Your task to perform on an android device: turn off smart reply in the gmail app Image 0: 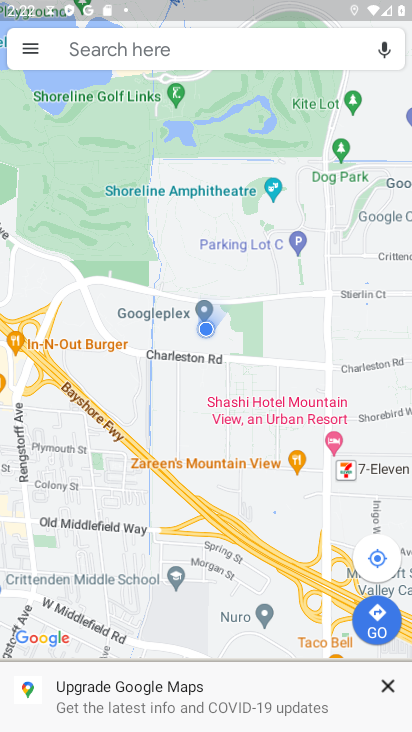
Step 0: press home button
Your task to perform on an android device: turn off smart reply in the gmail app Image 1: 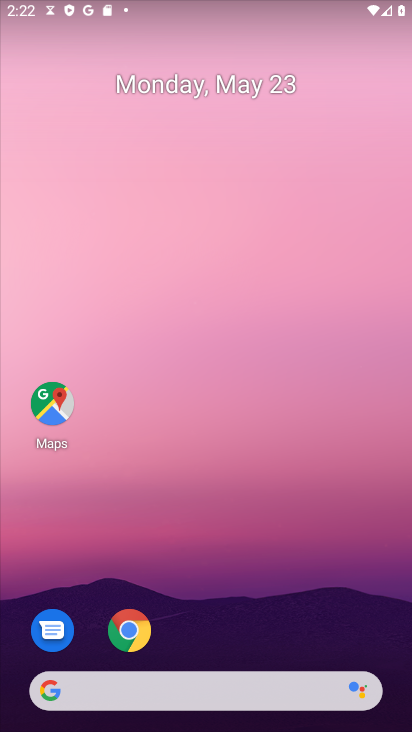
Step 1: drag from (265, 504) to (257, 78)
Your task to perform on an android device: turn off smart reply in the gmail app Image 2: 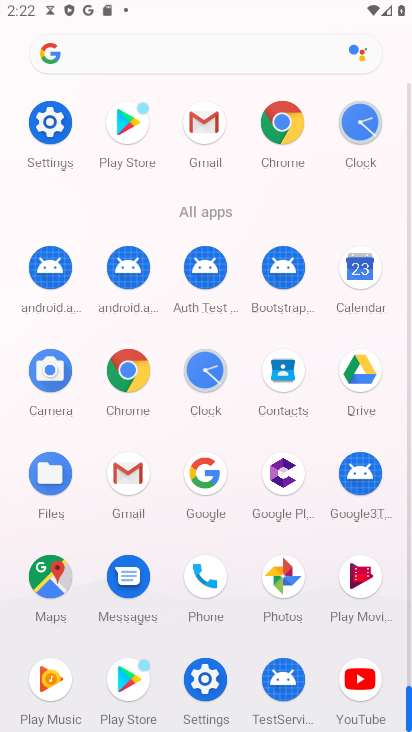
Step 2: click (206, 129)
Your task to perform on an android device: turn off smart reply in the gmail app Image 3: 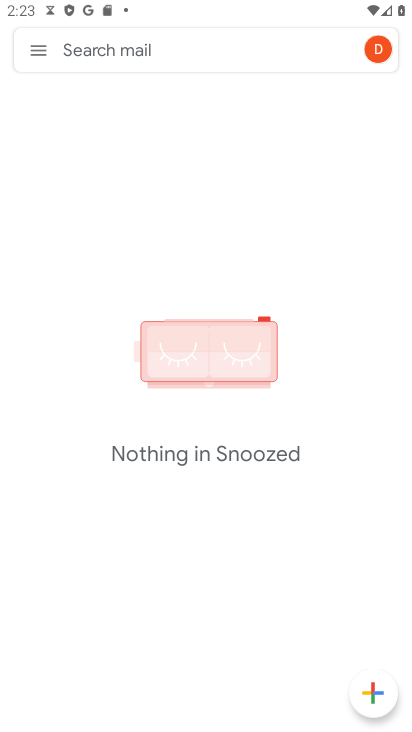
Step 3: click (44, 66)
Your task to perform on an android device: turn off smart reply in the gmail app Image 4: 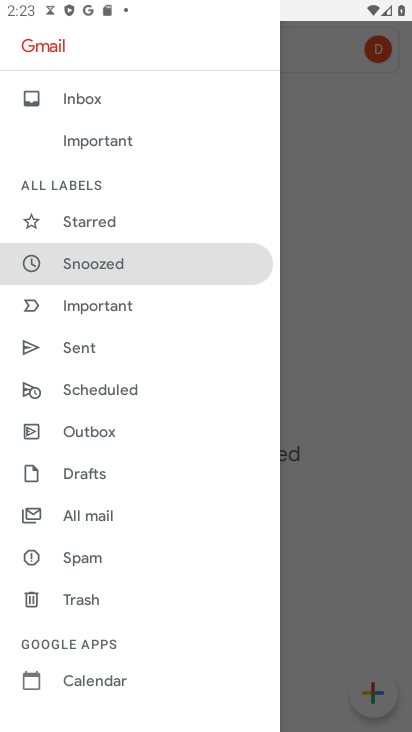
Step 4: drag from (124, 578) to (145, 113)
Your task to perform on an android device: turn off smart reply in the gmail app Image 5: 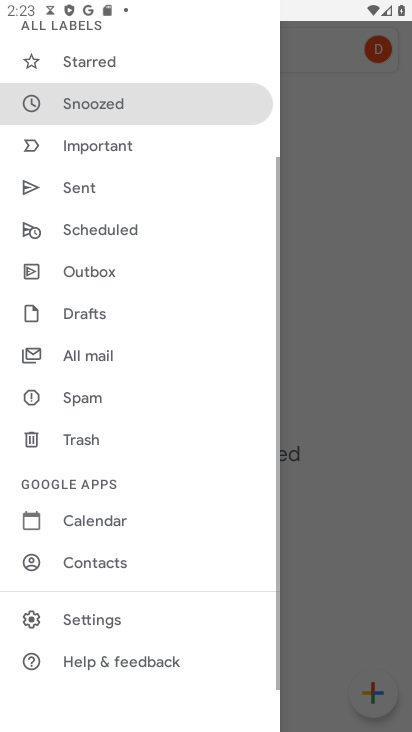
Step 5: click (102, 623)
Your task to perform on an android device: turn off smart reply in the gmail app Image 6: 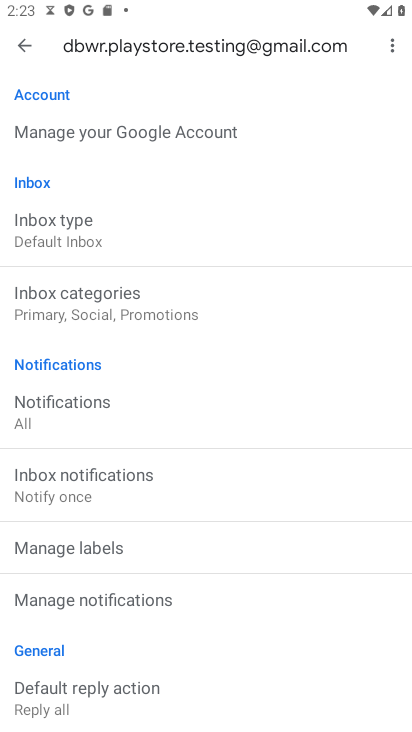
Step 6: drag from (155, 501) to (201, 142)
Your task to perform on an android device: turn off smart reply in the gmail app Image 7: 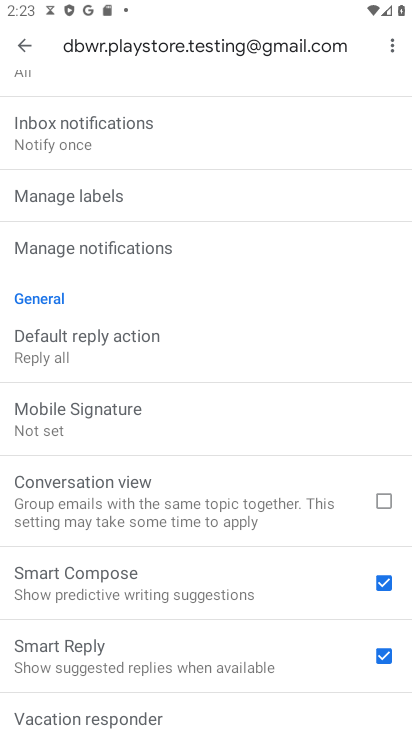
Step 7: drag from (115, 541) to (56, 133)
Your task to perform on an android device: turn off smart reply in the gmail app Image 8: 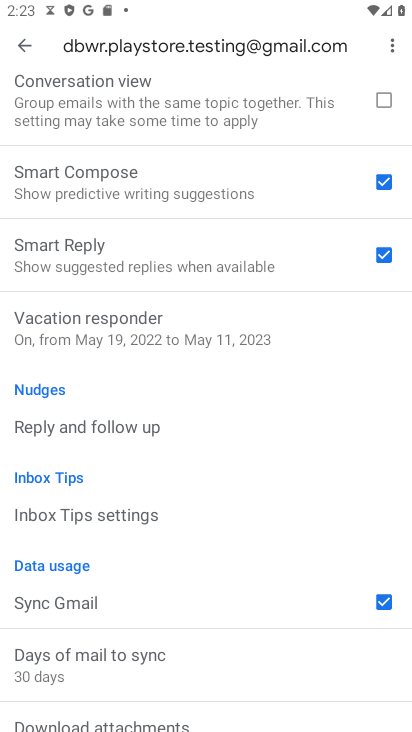
Step 8: drag from (204, 560) to (148, 281)
Your task to perform on an android device: turn off smart reply in the gmail app Image 9: 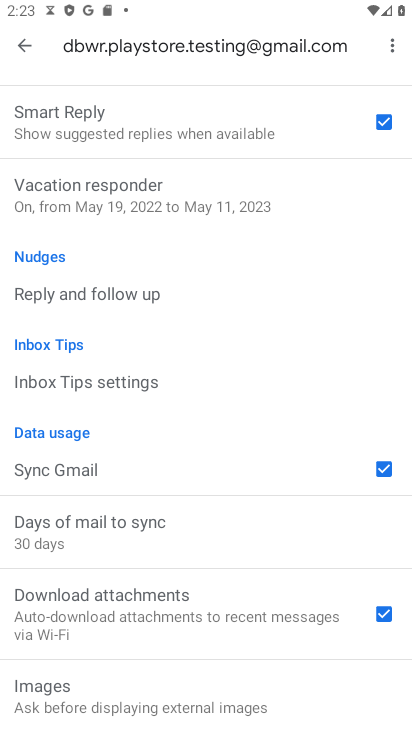
Step 9: drag from (167, 543) to (169, 163)
Your task to perform on an android device: turn off smart reply in the gmail app Image 10: 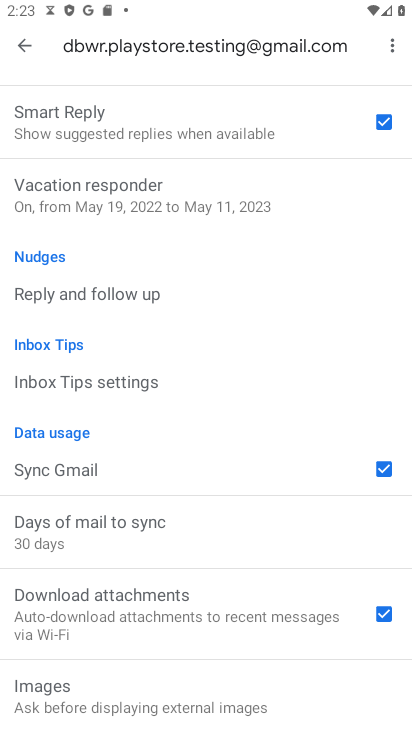
Step 10: drag from (101, 603) to (123, 194)
Your task to perform on an android device: turn off smart reply in the gmail app Image 11: 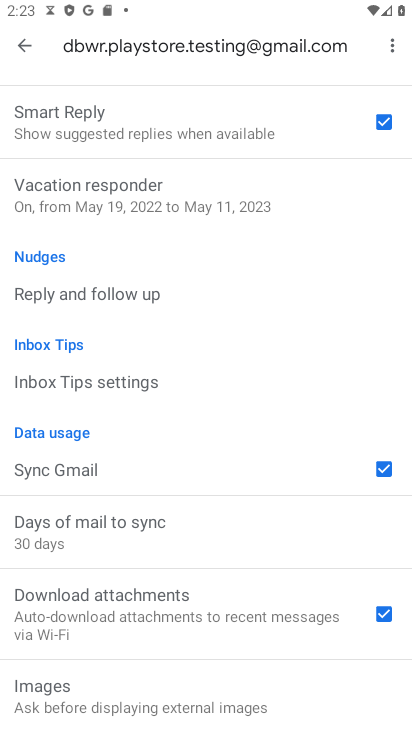
Step 11: drag from (108, 335) to (124, 659)
Your task to perform on an android device: turn off smart reply in the gmail app Image 12: 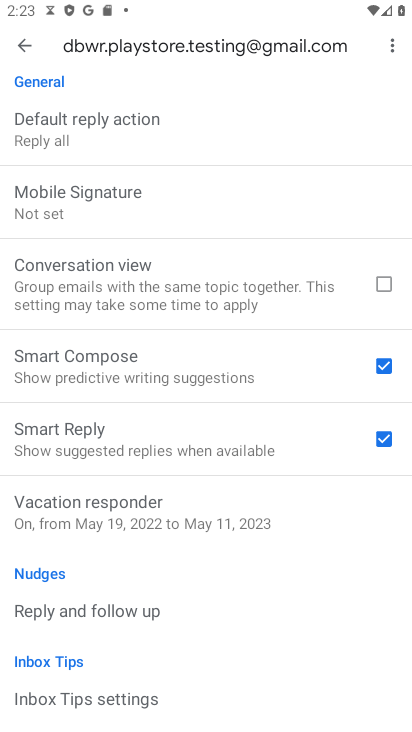
Step 12: drag from (165, 325) to (174, 646)
Your task to perform on an android device: turn off smart reply in the gmail app Image 13: 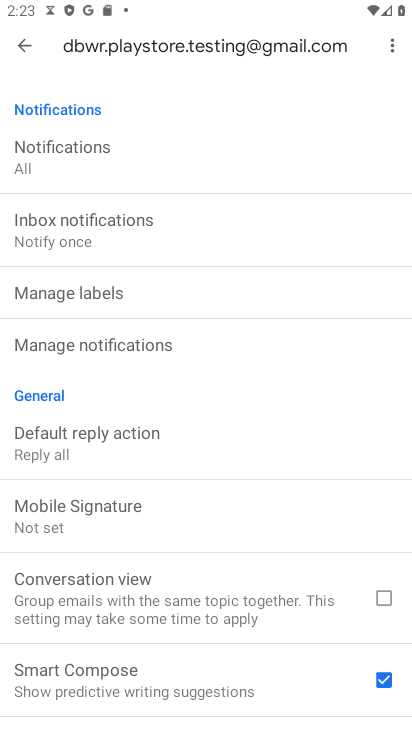
Step 13: drag from (166, 237) to (195, 595)
Your task to perform on an android device: turn off smart reply in the gmail app Image 14: 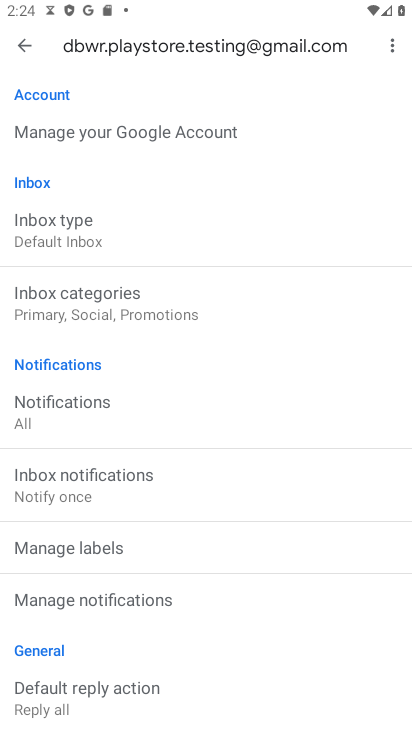
Step 14: drag from (167, 245) to (185, 573)
Your task to perform on an android device: turn off smart reply in the gmail app Image 15: 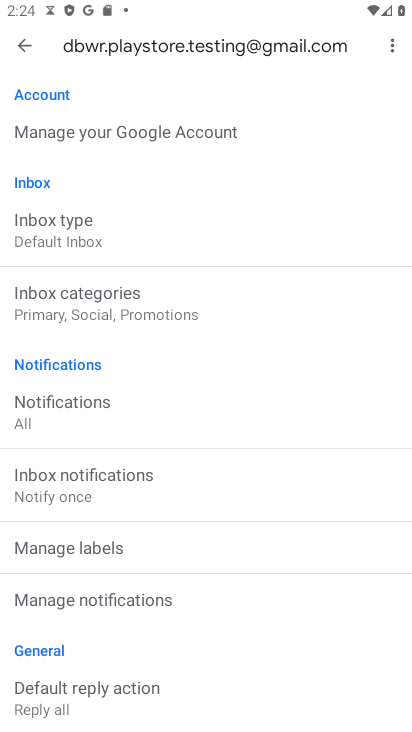
Step 15: drag from (161, 259) to (208, 616)
Your task to perform on an android device: turn off smart reply in the gmail app Image 16: 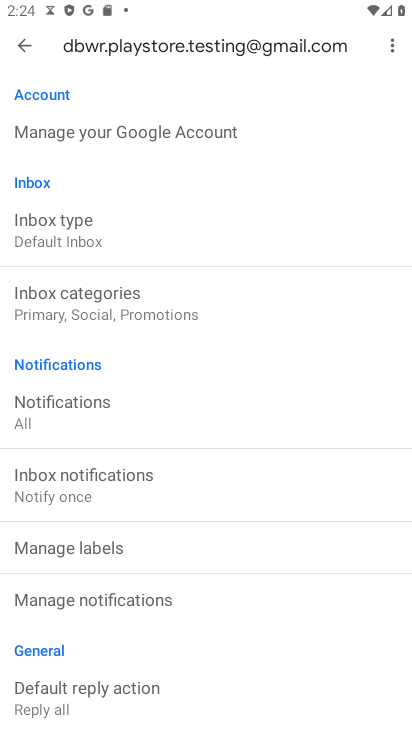
Step 16: drag from (185, 583) to (164, 251)
Your task to perform on an android device: turn off smart reply in the gmail app Image 17: 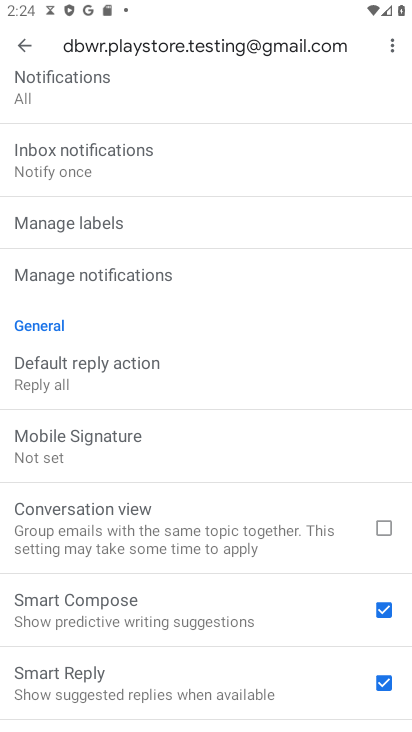
Step 17: drag from (178, 613) to (136, 313)
Your task to perform on an android device: turn off smart reply in the gmail app Image 18: 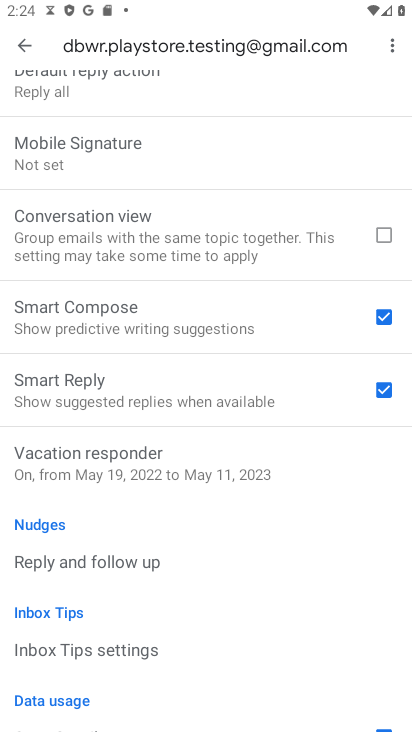
Step 18: click (401, 396)
Your task to perform on an android device: turn off smart reply in the gmail app Image 19: 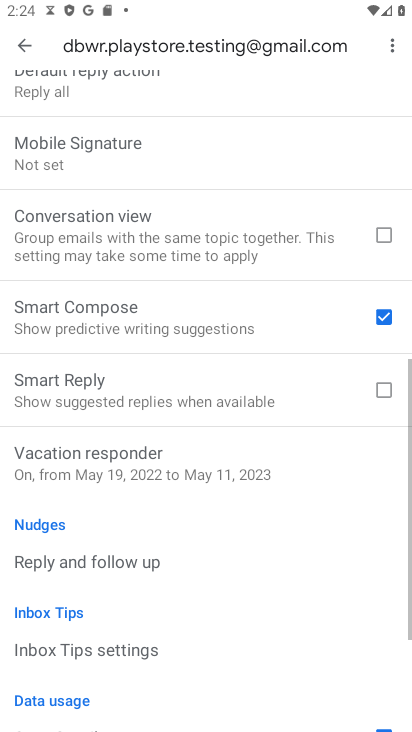
Step 19: task complete